Your task to perform on an android device: Go to network settings Image 0: 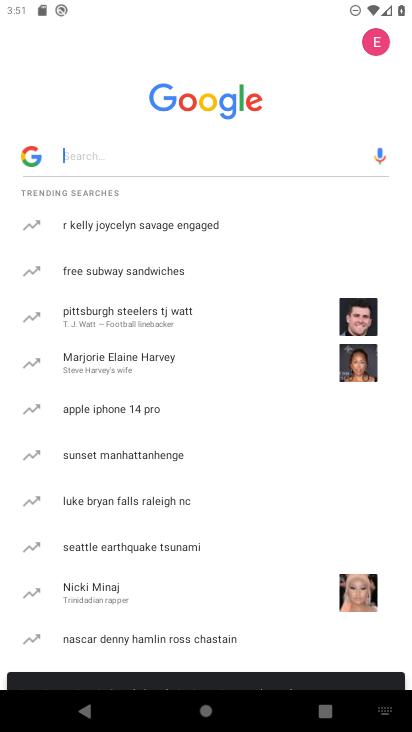
Step 0: press home button
Your task to perform on an android device: Go to network settings Image 1: 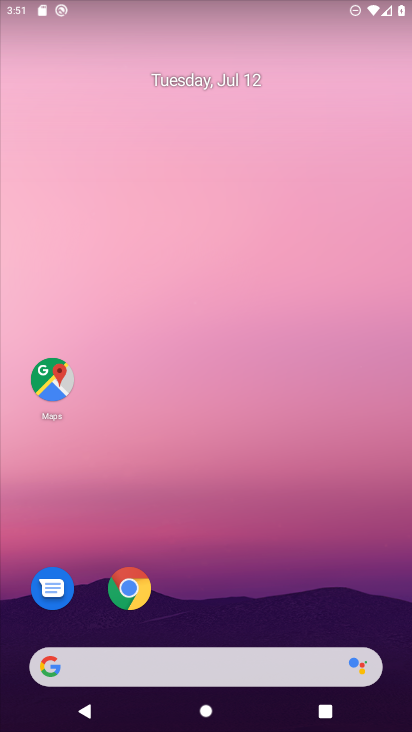
Step 1: drag from (299, 624) to (272, 50)
Your task to perform on an android device: Go to network settings Image 2: 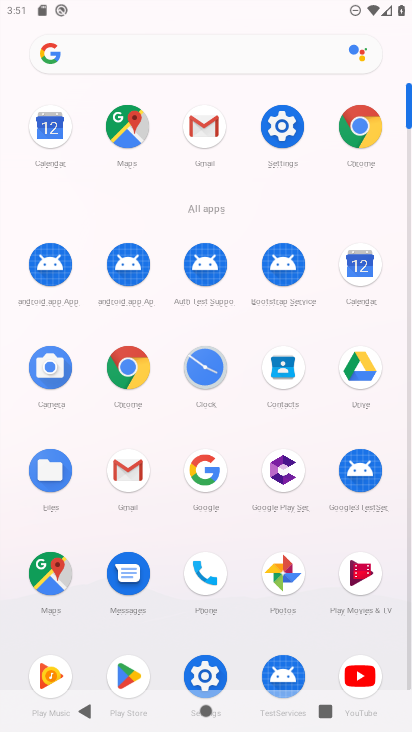
Step 2: click (291, 125)
Your task to perform on an android device: Go to network settings Image 3: 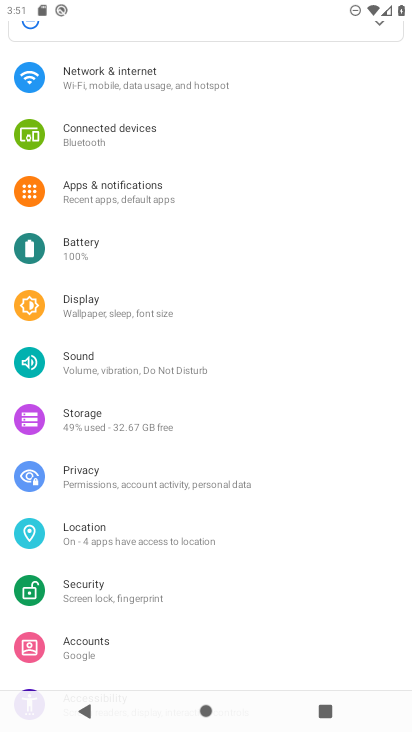
Step 3: click (207, 88)
Your task to perform on an android device: Go to network settings Image 4: 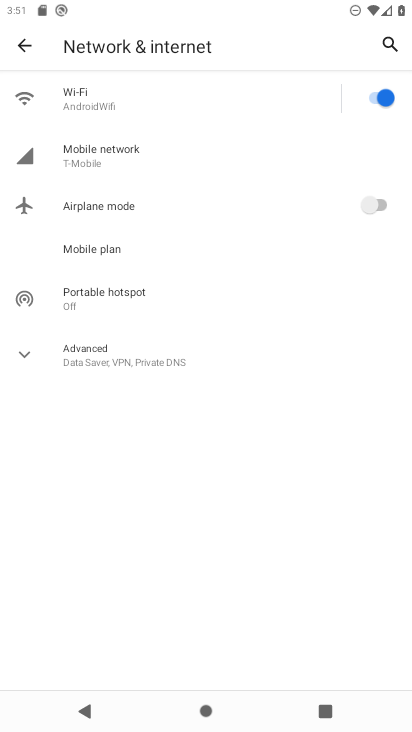
Step 4: task complete